Your task to perform on an android device: change text size in settings app Image 0: 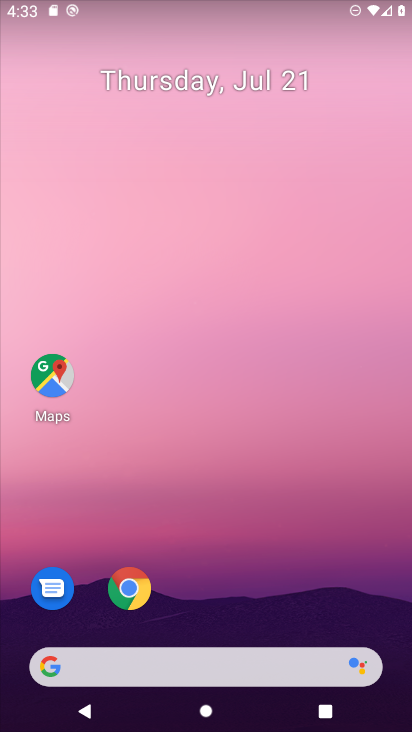
Step 0: drag from (219, 683) to (228, 199)
Your task to perform on an android device: change text size in settings app Image 1: 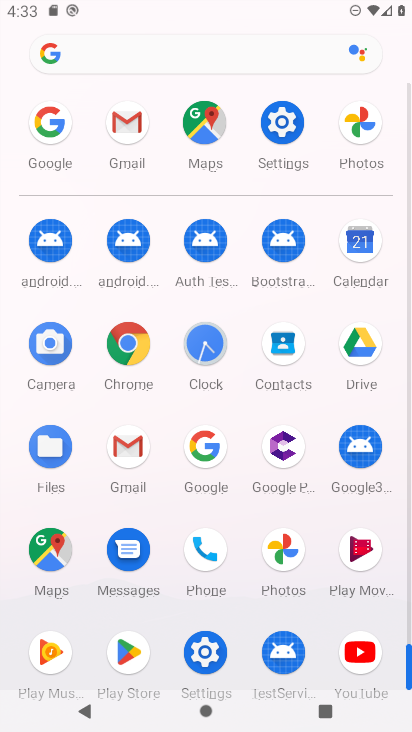
Step 1: click (295, 136)
Your task to perform on an android device: change text size in settings app Image 2: 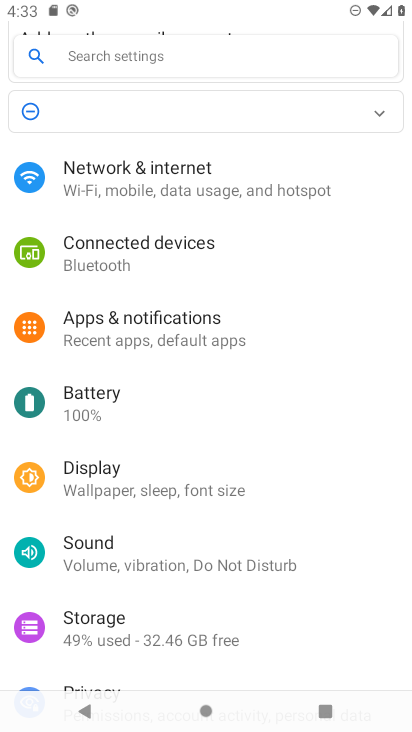
Step 2: drag from (155, 486) to (160, 326)
Your task to perform on an android device: change text size in settings app Image 3: 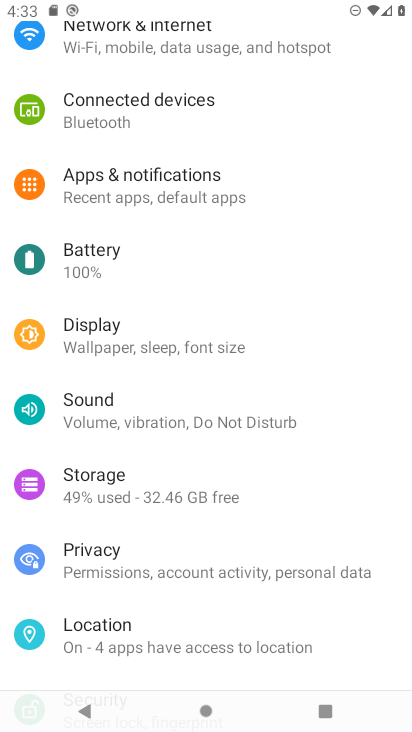
Step 3: drag from (118, 494) to (121, 443)
Your task to perform on an android device: change text size in settings app Image 4: 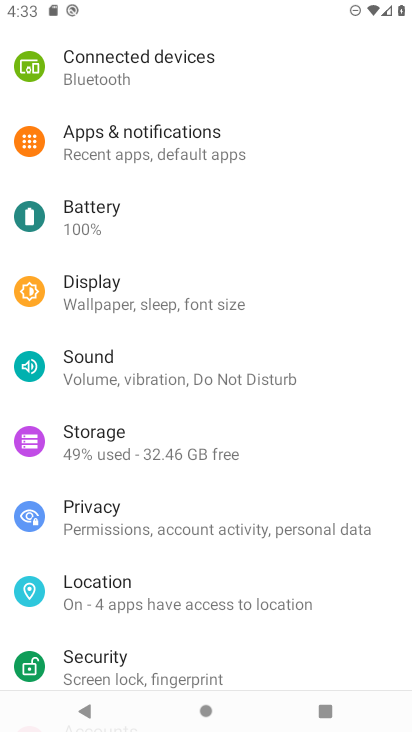
Step 4: click (121, 310)
Your task to perform on an android device: change text size in settings app Image 5: 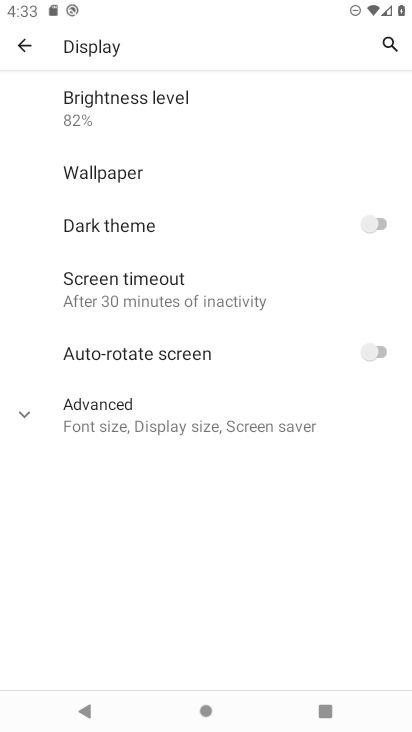
Step 5: click (176, 414)
Your task to perform on an android device: change text size in settings app Image 6: 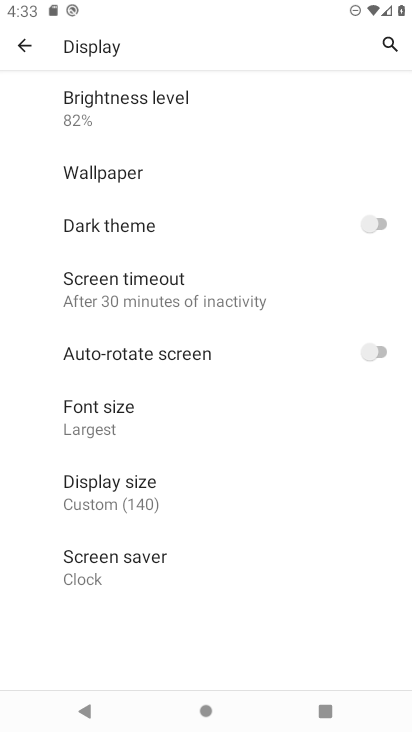
Step 6: click (138, 424)
Your task to perform on an android device: change text size in settings app Image 7: 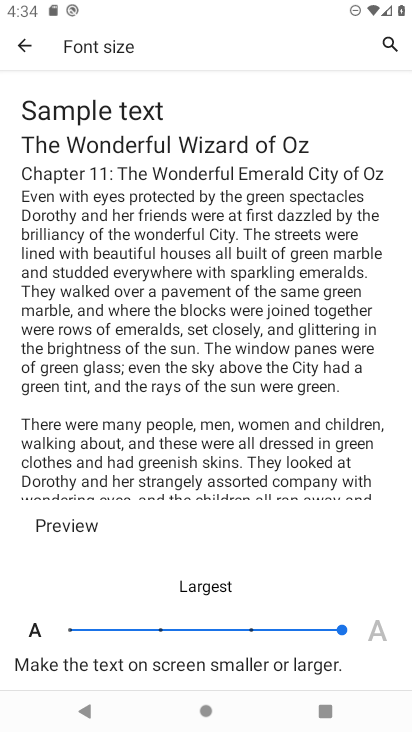
Step 7: click (259, 628)
Your task to perform on an android device: change text size in settings app Image 8: 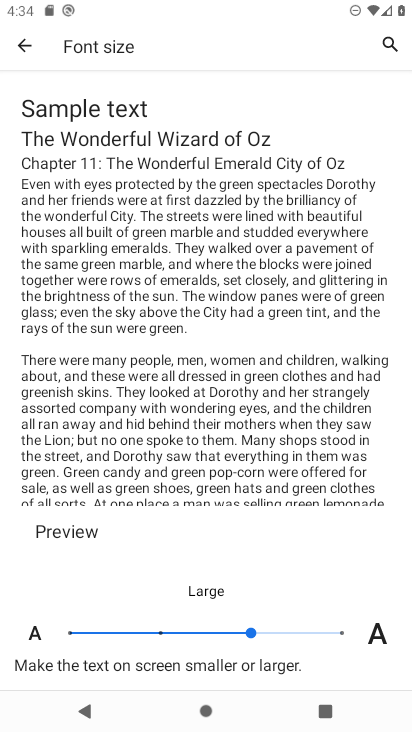
Step 8: task complete